Your task to perform on an android device: open app "NewsBreak: Local News & Alerts" (install if not already installed) and enter user name: "switch@outlook.com" and password: "fabrics" Image 0: 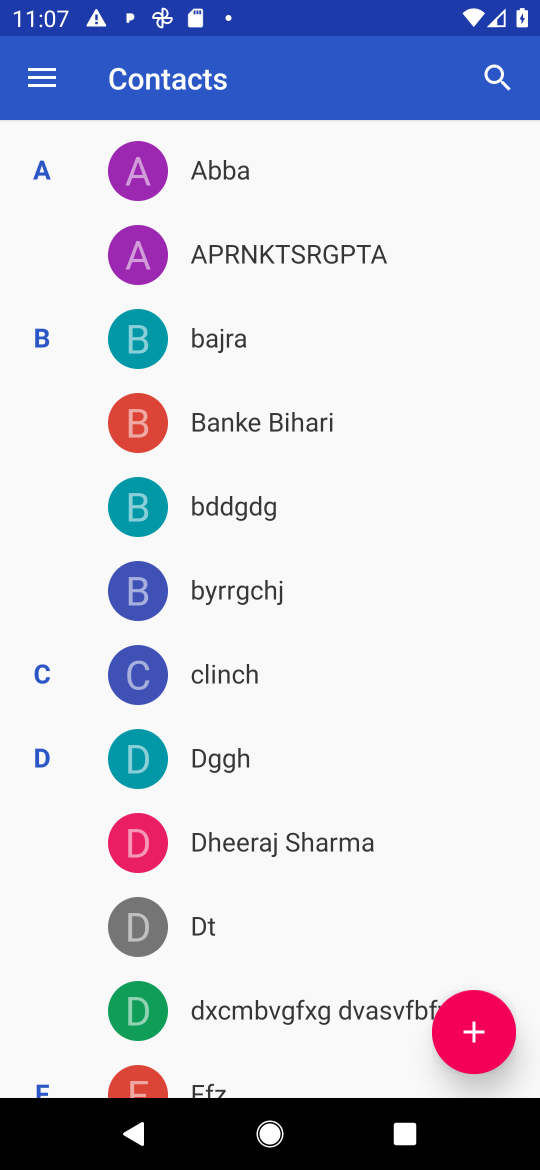
Step 0: press home button
Your task to perform on an android device: open app "NewsBreak: Local News & Alerts" (install if not already installed) and enter user name: "switch@outlook.com" and password: "fabrics" Image 1: 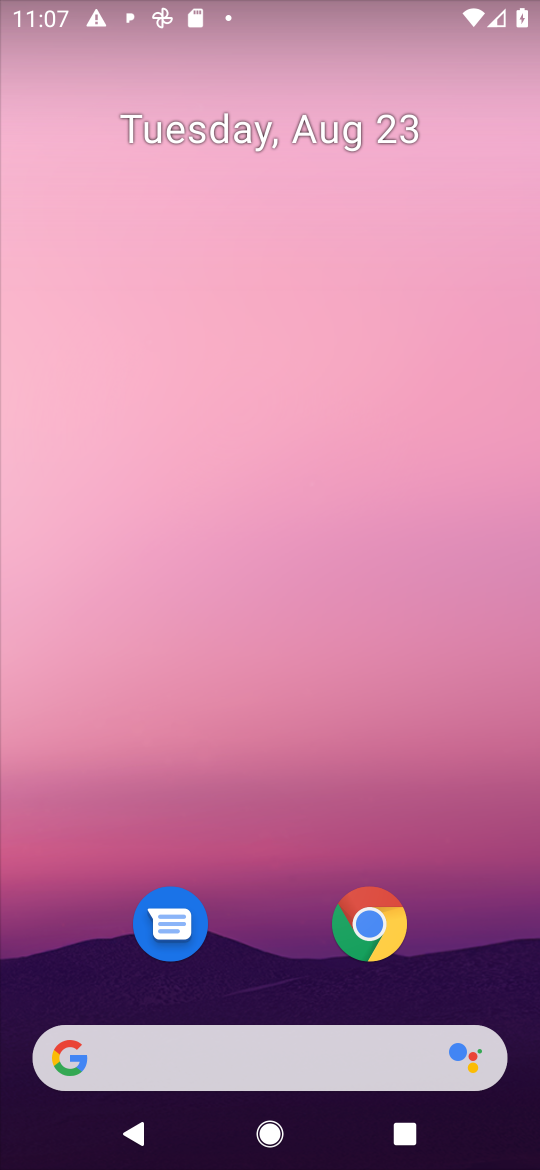
Step 1: drag from (476, 980) to (503, 183)
Your task to perform on an android device: open app "NewsBreak: Local News & Alerts" (install if not already installed) and enter user name: "switch@outlook.com" and password: "fabrics" Image 2: 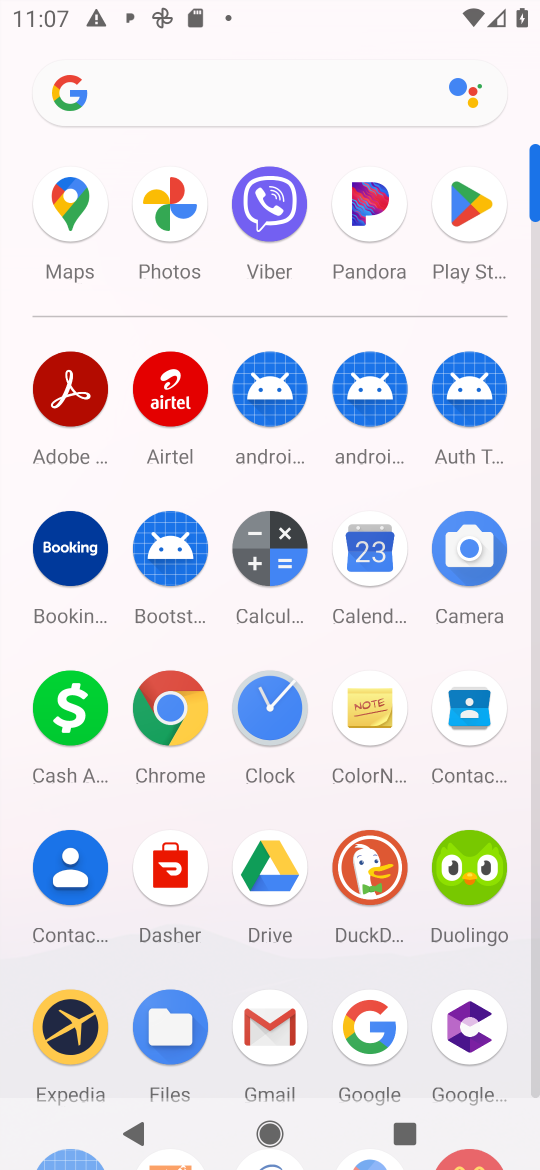
Step 2: click (468, 206)
Your task to perform on an android device: open app "NewsBreak: Local News & Alerts" (install if not already installed) and enter user name: "switch@outlook.com" and password: "fabrics" Image 3: 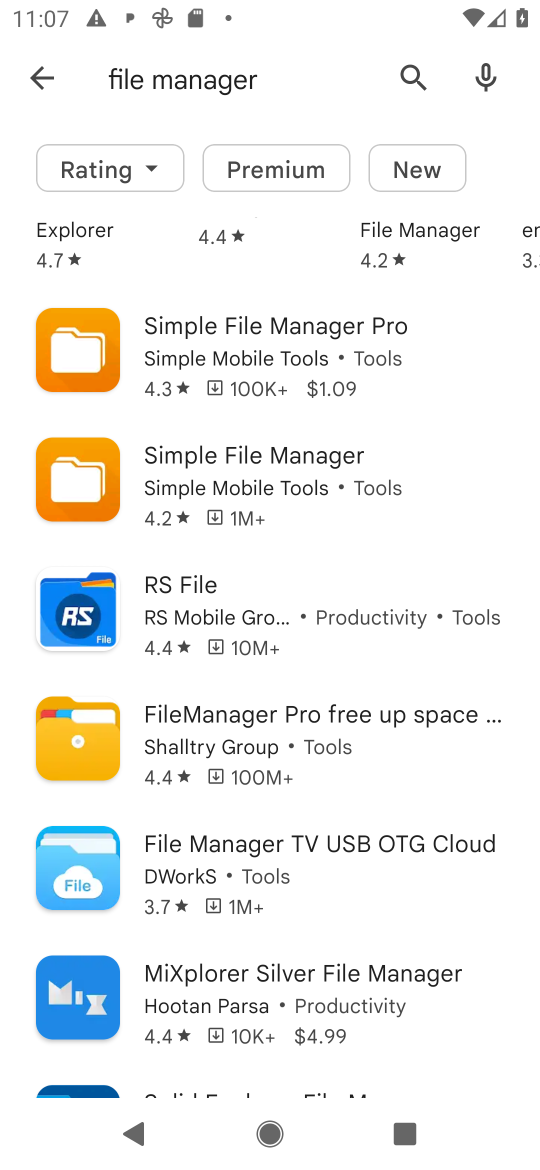
Step 3: press back button
Your task to perform on an android device: open app "NewsBreak: Local News & Alerts" (install if not already installed) and enter user name: "switch@outlook.com" and password: "fabrics" Image 4: 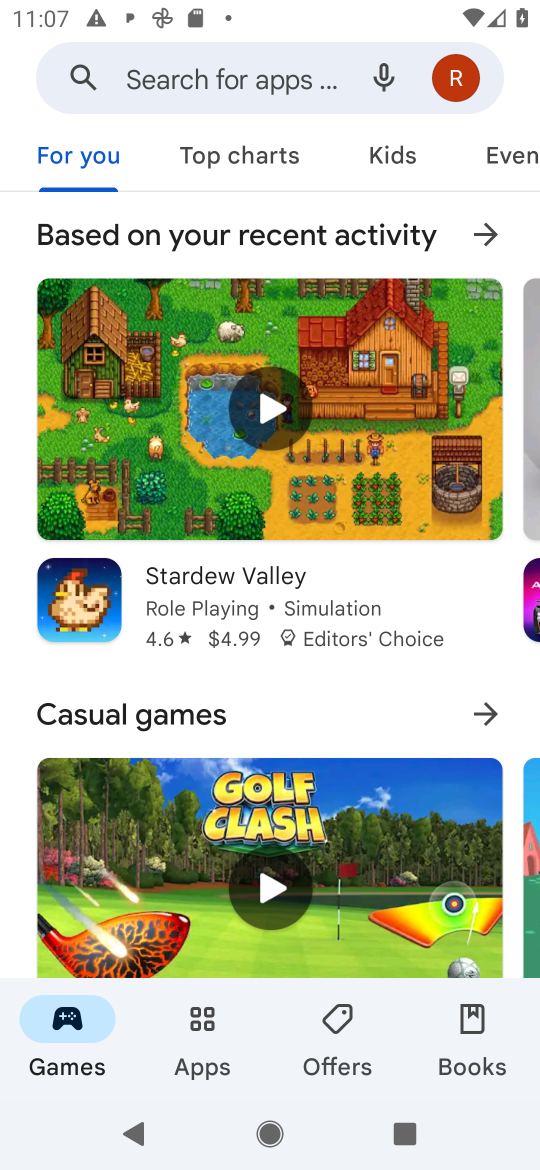
Step 4: click (257, 80)
Your task to perform on an android device: open app "NewsBreak: Local News & Alerts" (install if not already installed) and enter user name: "switch@outlook.com" and password: "fabrics" Image 5: 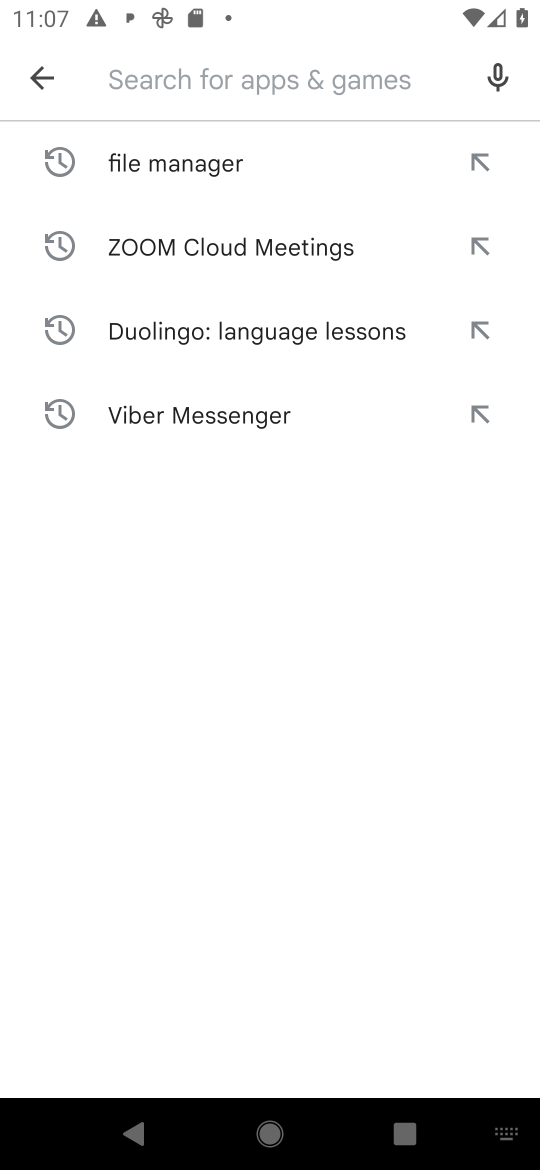
Step 5: type "NewsBreak: Local News & Alerts"
Your task to perform on an android device: open app "NewsBreak: Local News & Alerts" (install if not already installed) and enter user name: "switch@outlook.com" and password: "fabrics" Image 6: 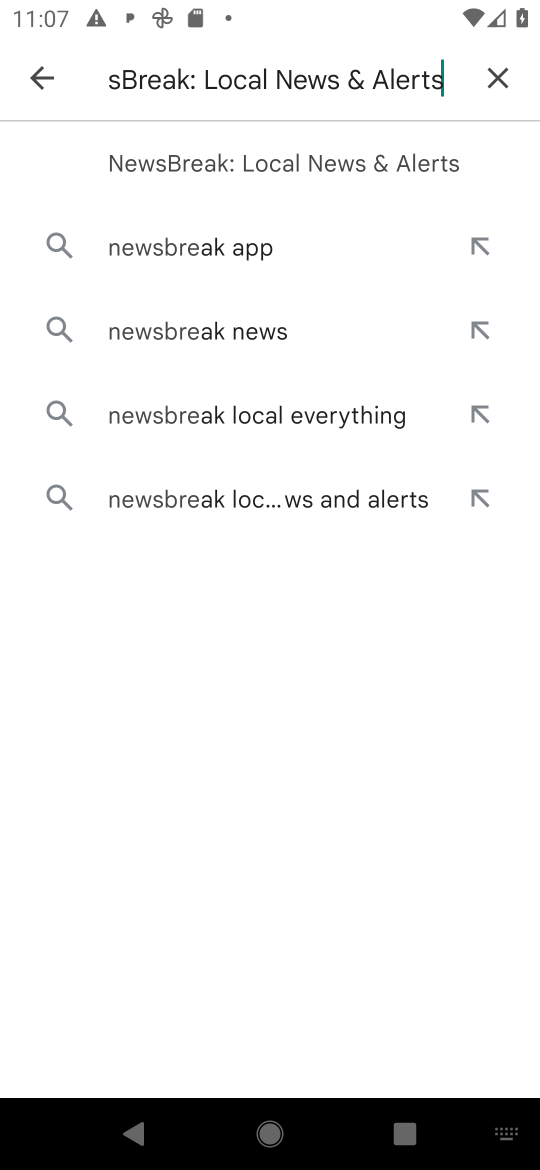
Step 6: press enter
Your task to perform on an android device: open app "NewsBreak: Local News & Alerts" (install if not already installed) and enter user name: "switch@outlook.com" and password: "fabrics" Image 7: 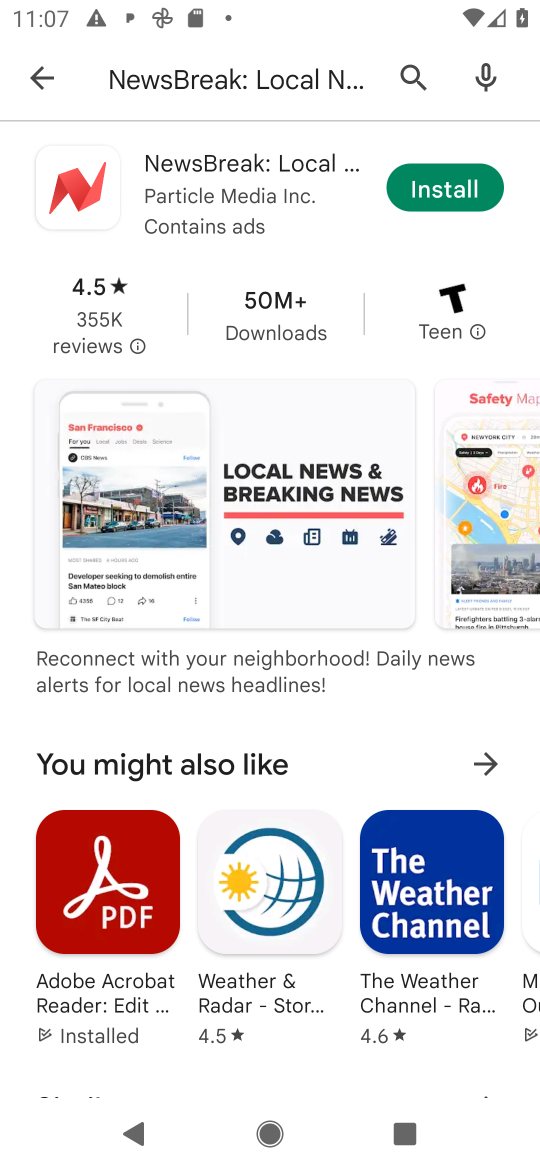
Step 7: click (449, 188)
Your task to perform on an android device: open app "NewsBreak: Local News & Alerts" (install if not already installed) and enter user name: "switch@outlook.com" and password: "fabrics" Image 8: 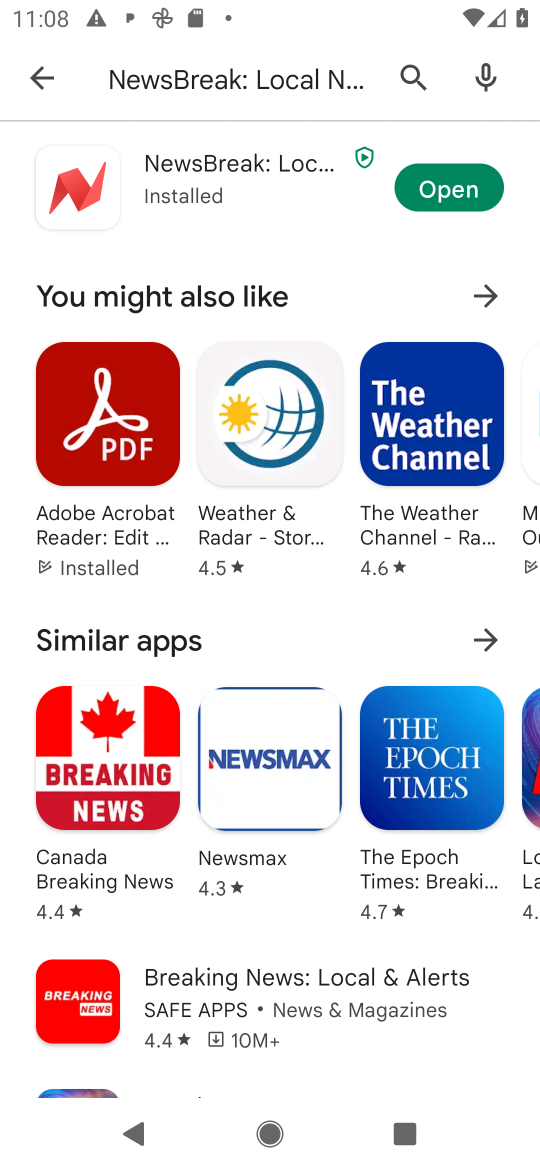
Step 8: click (435, 192)
Your task to perform on an android device: open app "NewsBreak: Local News & Alerts" (install if not already installed) and enter user name: "switch@outlook.com" and password: "fabrics" Image 9: 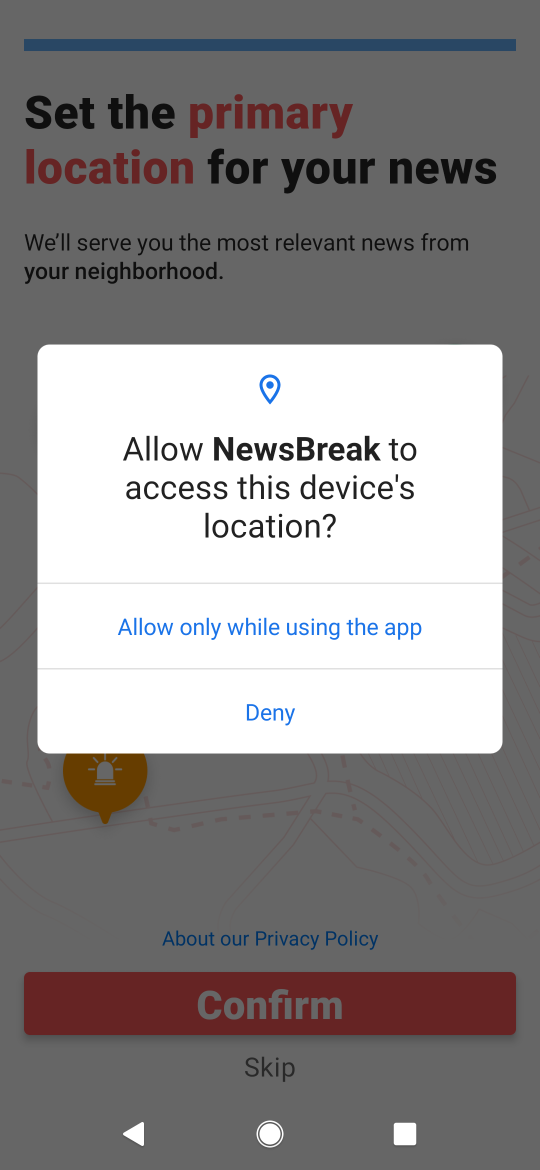
Step 9: click (273, 712)
Your task to perform on an android device: open app "NewsBreak: Local News & Alerts" (install if not already installed) and enter user name: "switch@outlook.com" and password: "fabrics" Image 10: 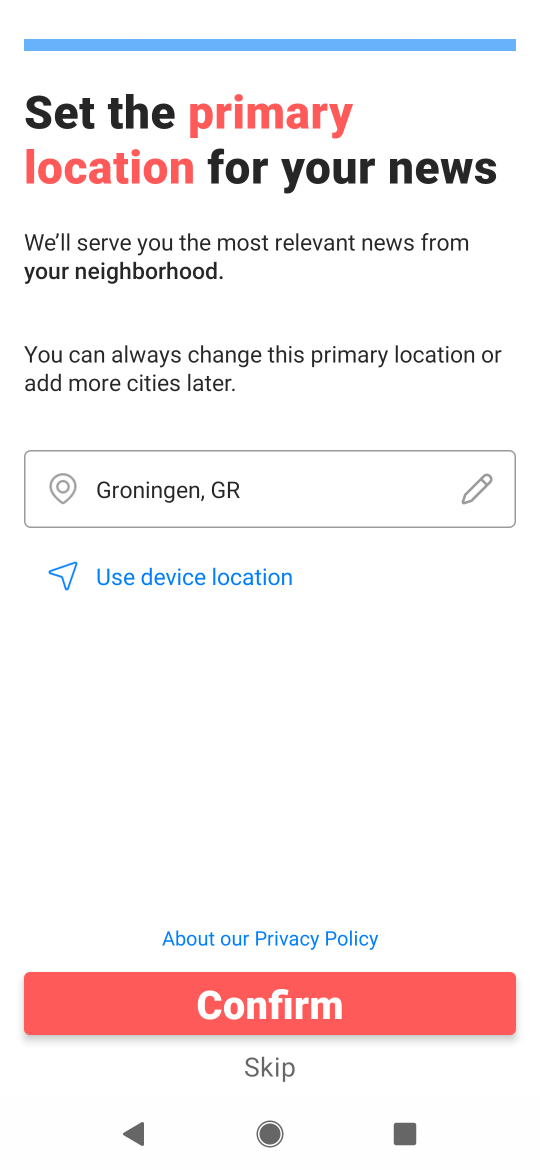
Step 10: click (274, 1058)
Your task to perform on an android device: open app "NewsBreak: Local News & Alerts" (install if not already installed) and enter user name: "switch@outlook.com" and password: "fabrics" Image 11: 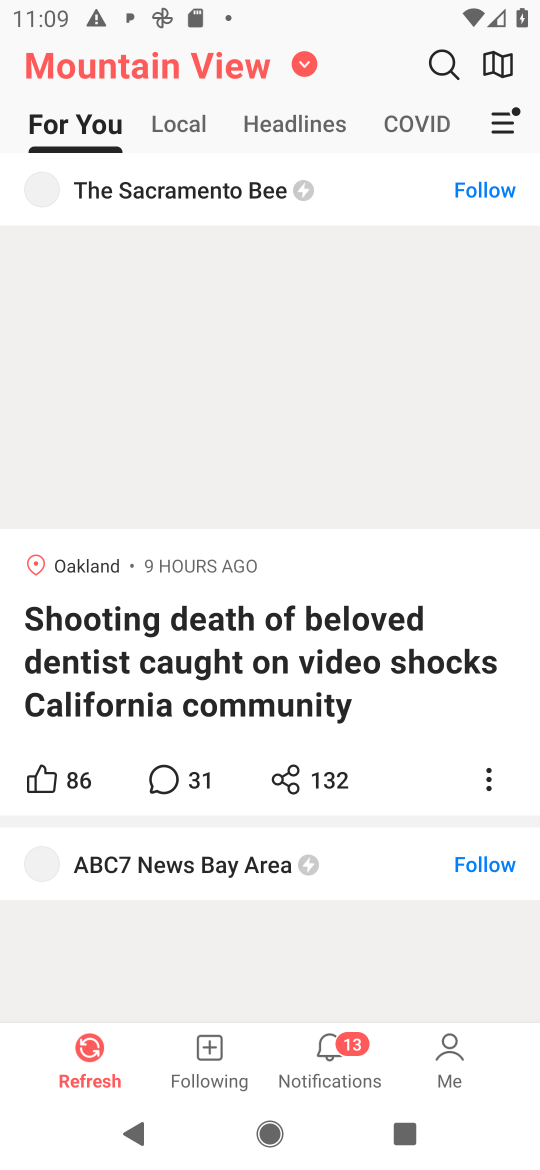
Step 11: click (445, 1064)
Your task to perform on an android device: open app "NewsBreak: Local News & Alerts" (install if not already installed) and enter user name: "switch@outlook.com" and password: "fabrics" Image 12: 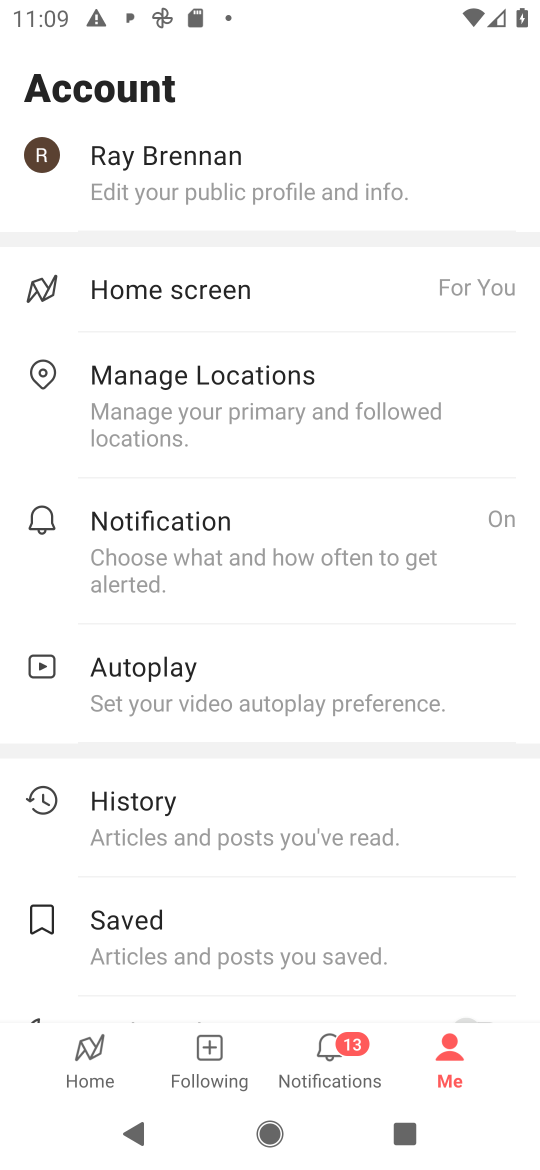
Step 12: click (194, 163)
Your task to perform on an android device: open app "NewsBreak: Local News & Alerts" (install if not already installed) and enter user name: "switch@outlook.com" and password: "fabrics" Image 13: 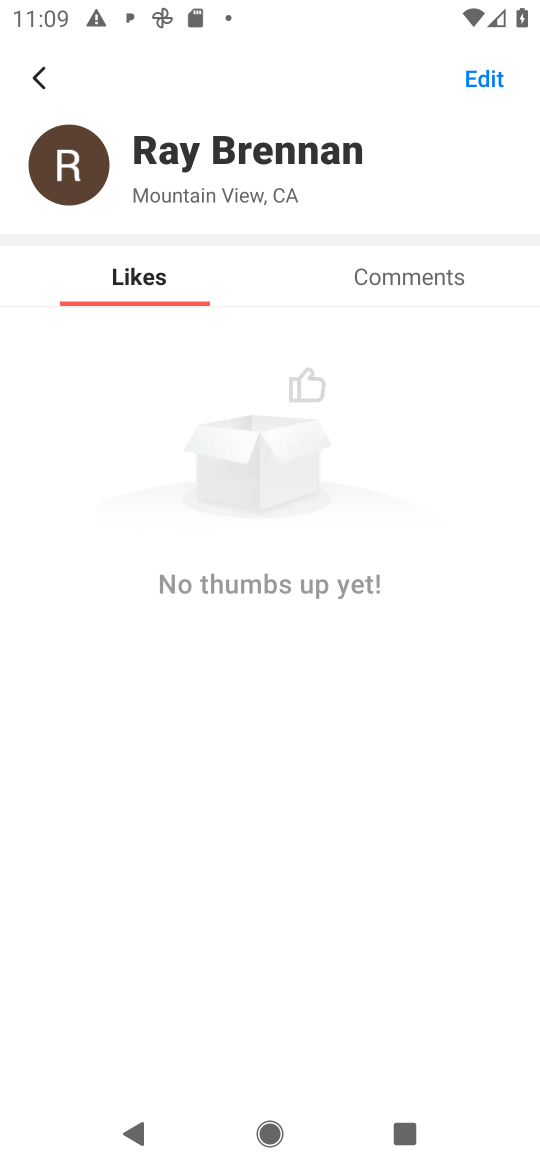
Step 13: click (483, 81)
Your task to perform on an android device: open app "NewsBreak: Local News & Alerts" (install if not already installed) and enter user name: "switch@outlook.com" and password: "fabrics" Image 14: 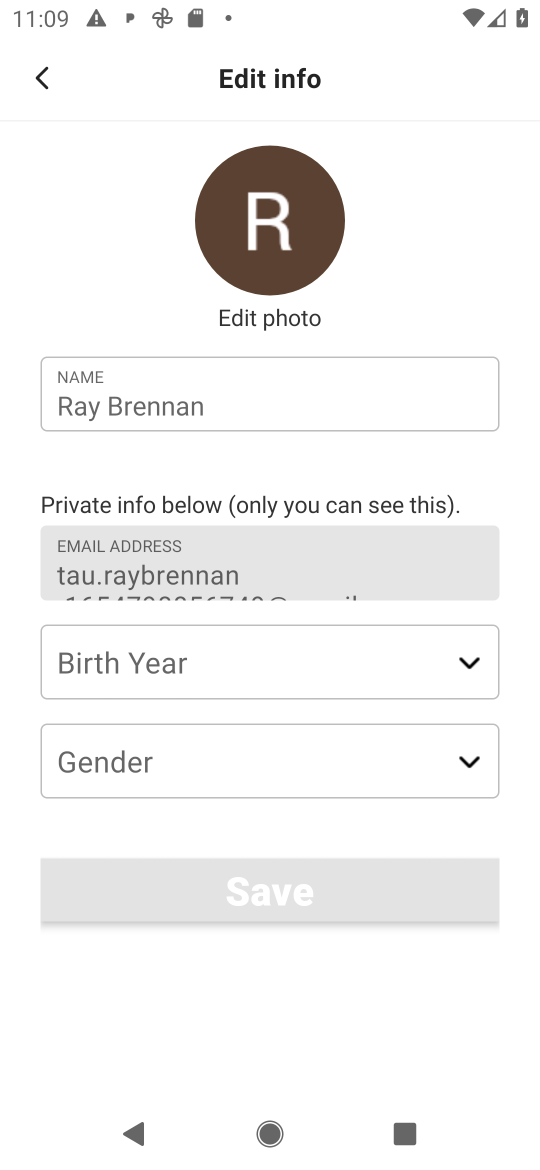
Step 14: task complete